Your task to perform on an android device: Open maps Image 0: 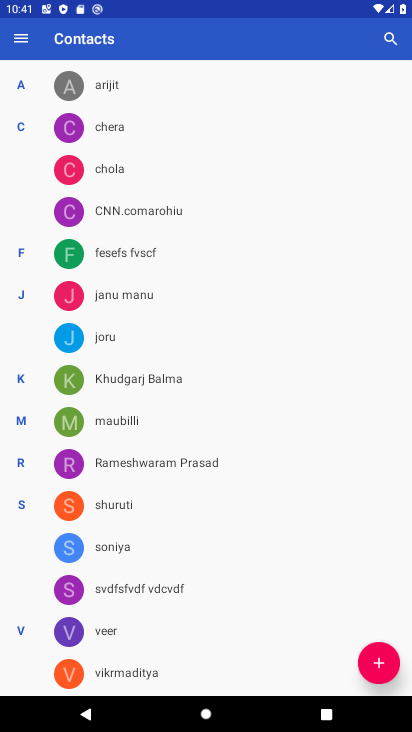
Step 0: press home button
Your task to perform on an android device: Open maps Image 1: 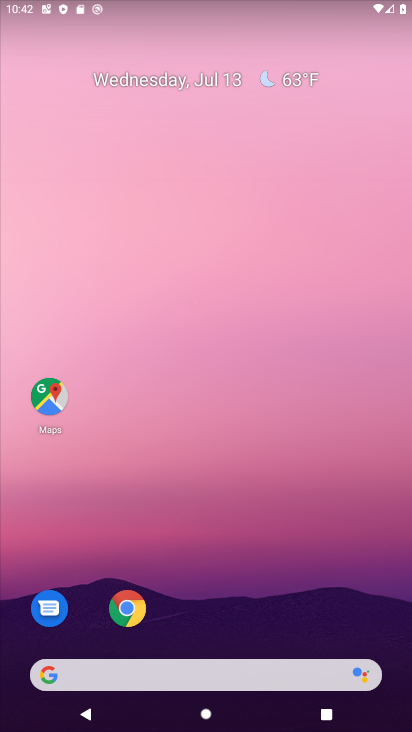
Step 1: click (45, 408)
Your task to perform on an android device: Open maps Image 2: 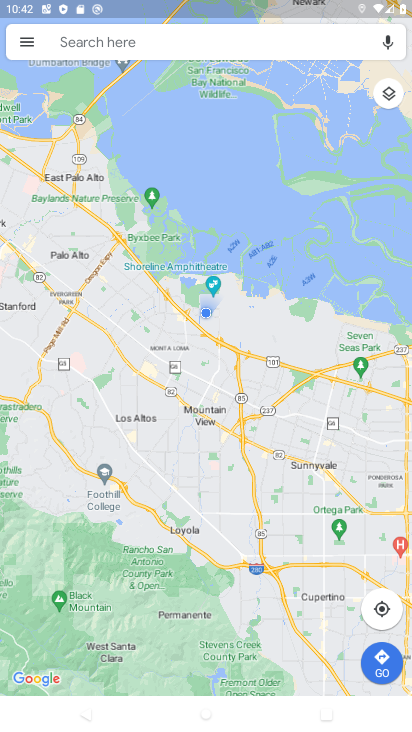
Step 2: task complete